Your task to perform on an android device: Open eBay Image 0: 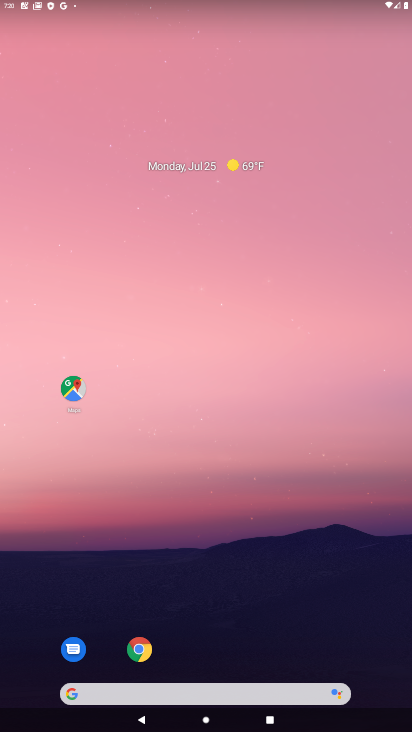
Step 0: drag from (225, 485) to (265, 14)
Your task to perform on an android device: Open eBay Image 1: 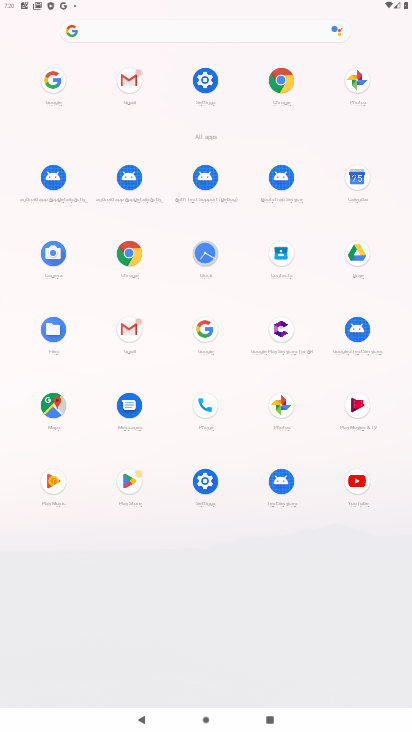
Step 1: click (283, 79)
Your task to perform on an android device: Open eBay Image 2: 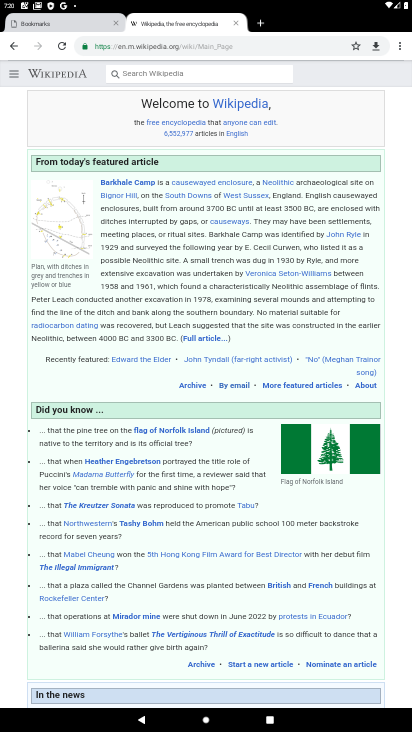
Step 2: click (8, 44)
Your task to perform on an android device: Open eBay Image 3: 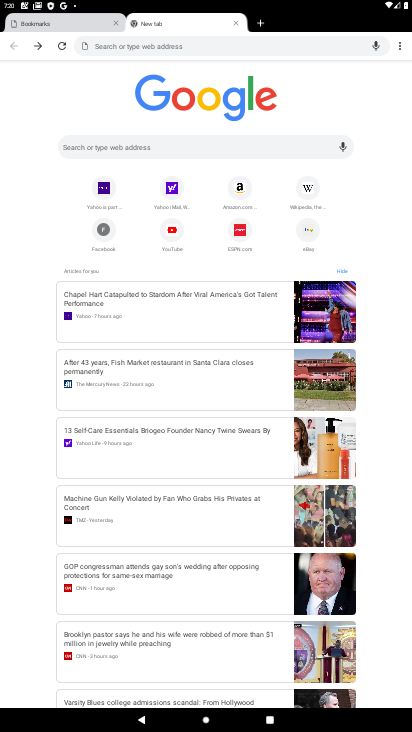
Step 3: click (307, 224)
Your task to perform on an android device: Open eBay Image 4: 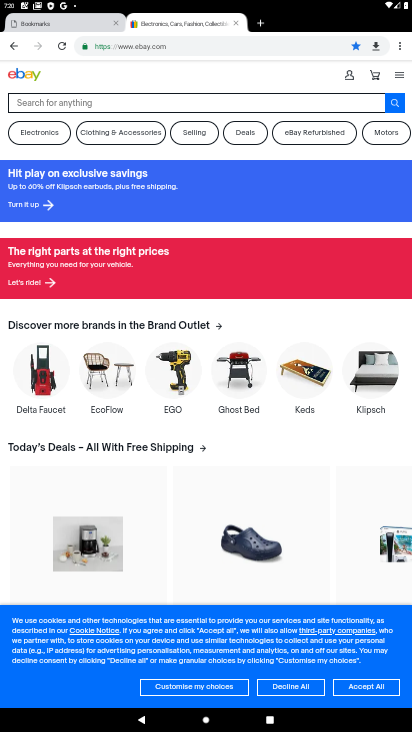
Step 4: task complete